Your task to perform on an android device: turn off translation in the chrome app Image 0: 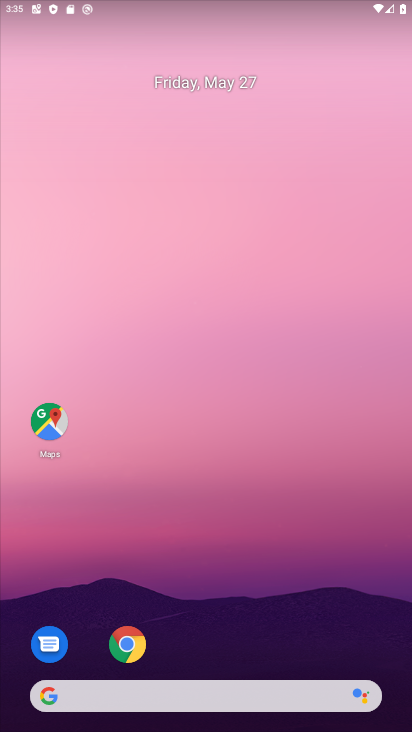
Step 0: drag from (293, 624) to (238, 124)
Your task to perform on an android device: turn off translation in the chrome app Image 1: 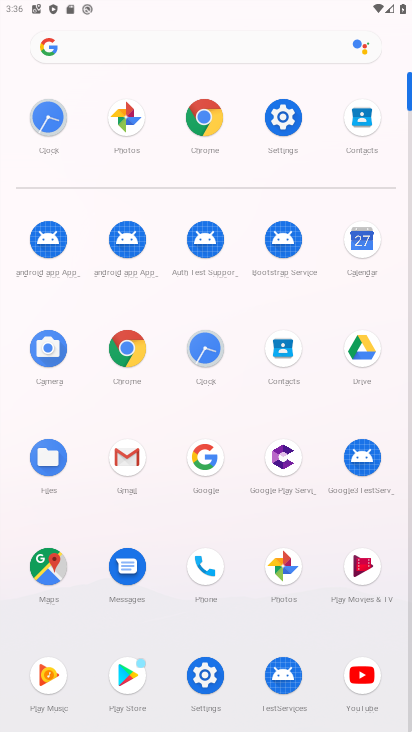
Step 1: click (137, 346)
Your task to perform on an android device: turn off translation in the chrome app Image 2: 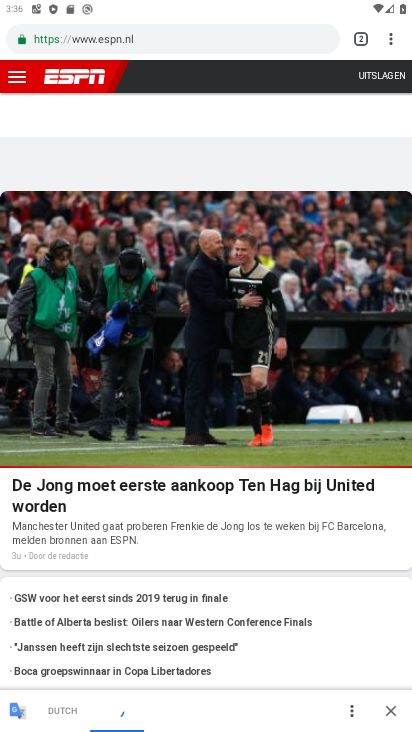
Step 2: click (391, 36)
Your task to perform on an android device: turn off translation in the chrome app Image 3: 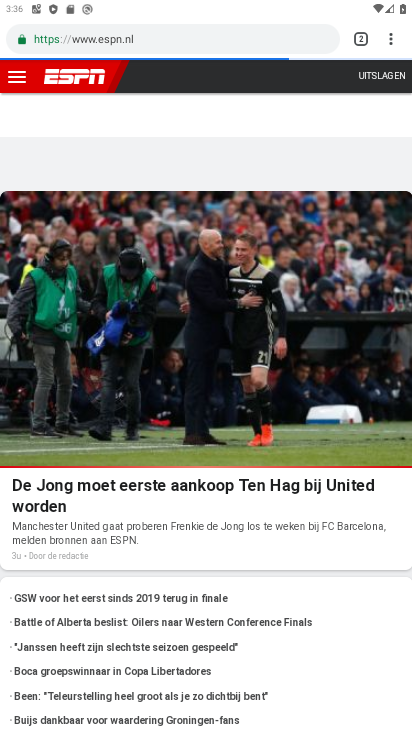
Step 3: click (382, 33)
Your task to perform on an android device: turn off translation in the chrome app Image 4: 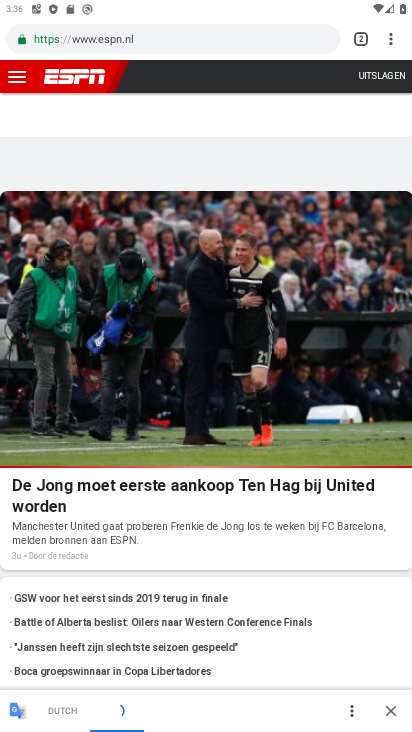
Step 4: click (398, 38)
Your task to perform on an android device: turn off translation in the chrome app Image 5: 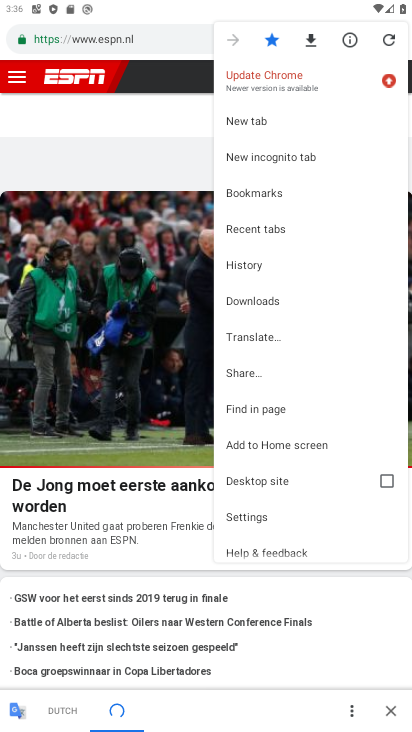
Step 5: click (277, 511)
Your task to perform on an android device: turn off translation in the chrome app Image 6: 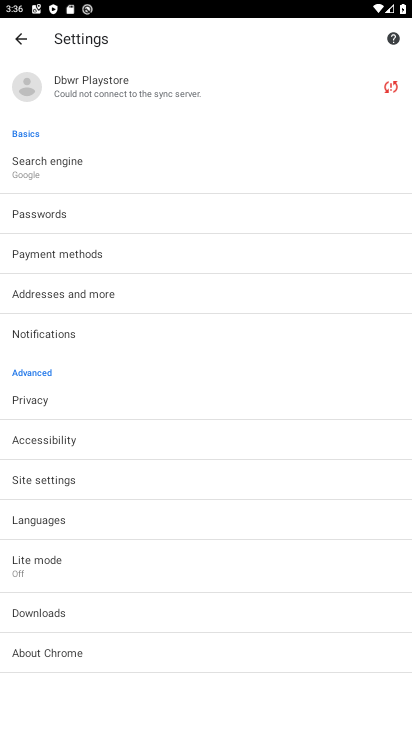
Step 6: click (75, 526)
Your task to perform on an android device: turn off translation in the chrome app Image 7: 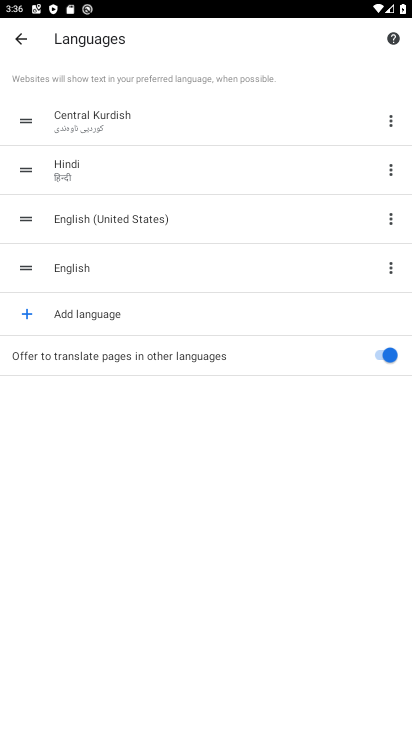
Step 7: click (387, 343)
Your task to perform on an android device: turn off translation in the chrome app Image 8: 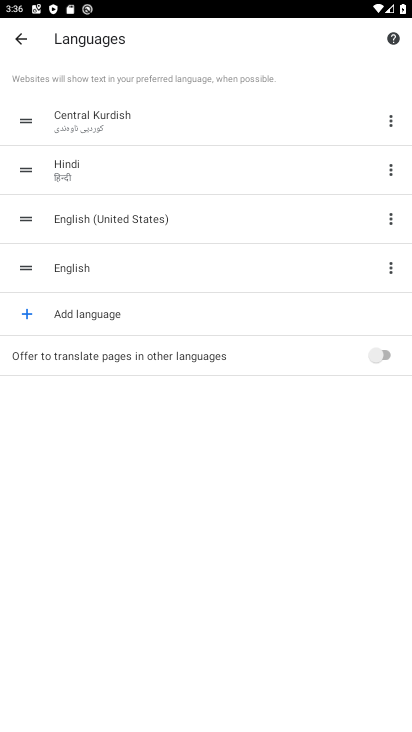
Step 8: task complete